Your task to perform on an android device: Check the news Image 0: 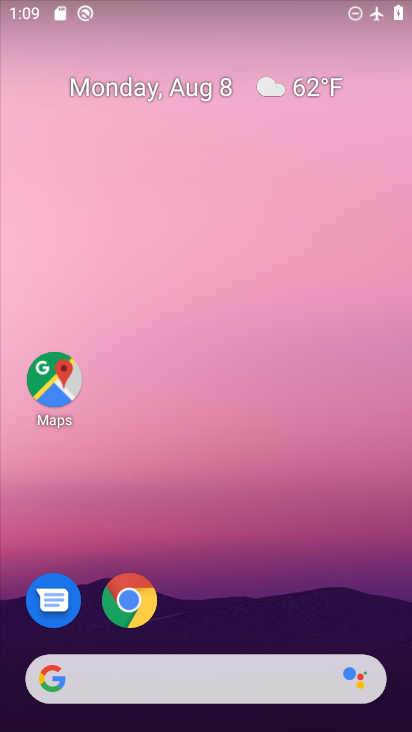
Step 0: drag from (233, 606) to (236, 176)
Your task to perform on an android device: Check the news Image 1: 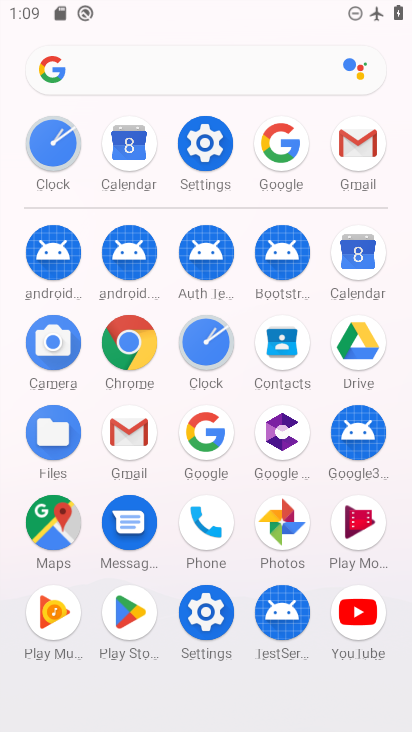
Step 1: click (289, 159)
Your task to perform on an android device: Check the news Image 2: 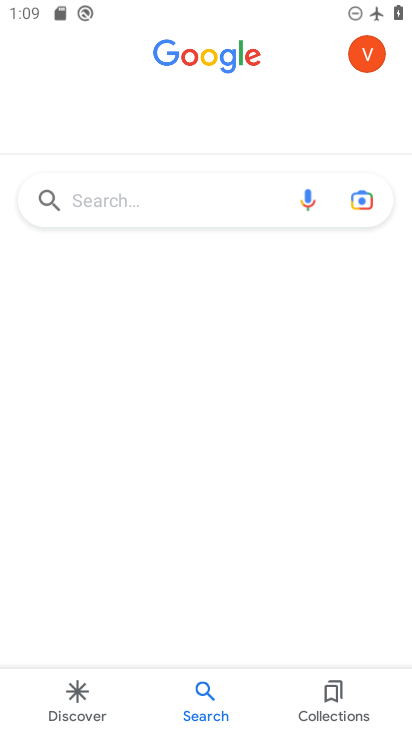
Step 2: click (163, 198)
Your task to perform on an android device: Check the news Image 3: 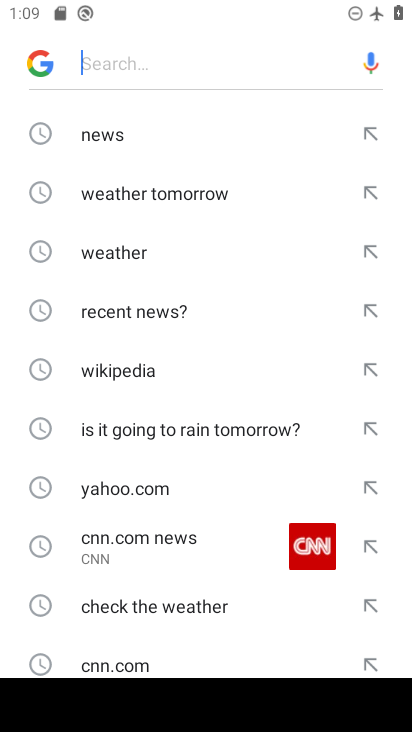
Step 3: click (143, 136)
Your task to perform on an android device: Check the news Image 4: 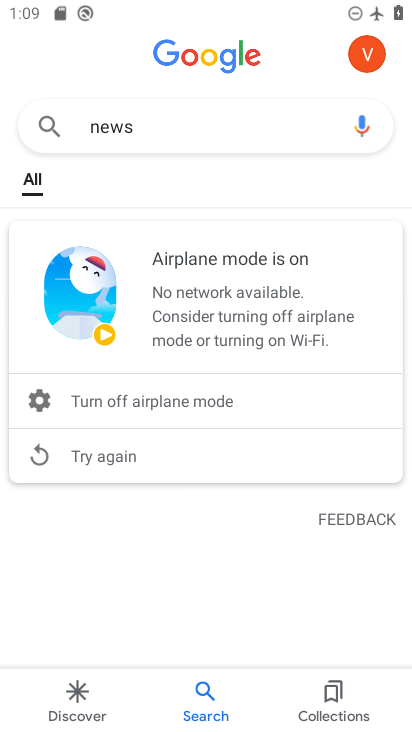
Step 4: task complete